Your task to perform on an android device: turn off translation in the chrome app Image 0: 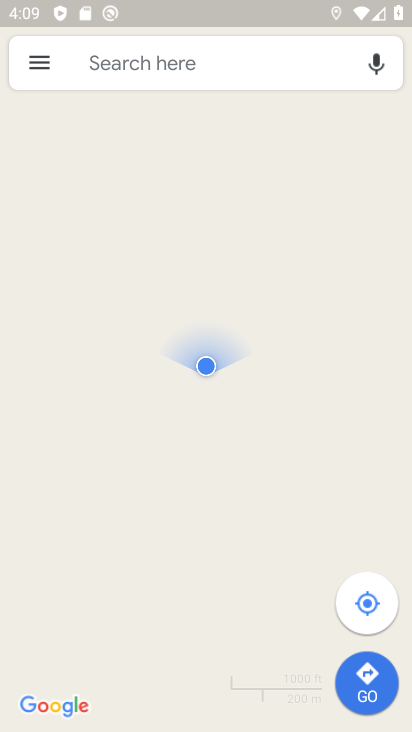
Step 0: press home button
Your task to perform on an android device: turn off translation in the chrome app Image 1: 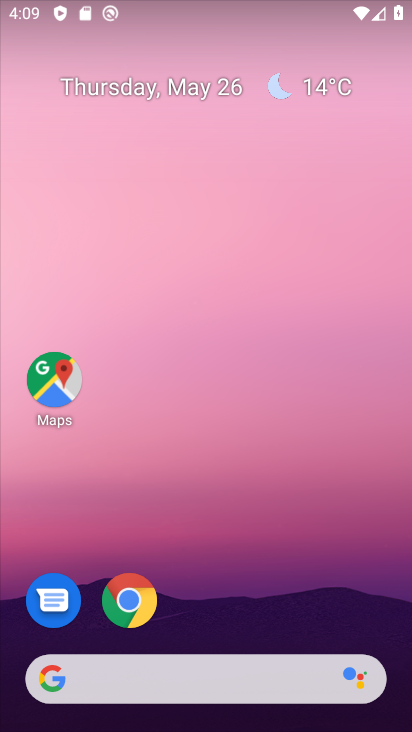
Step 1: click (132, 591)
Your task to perform on an android device: turn off translation in the chrome app Image 2: 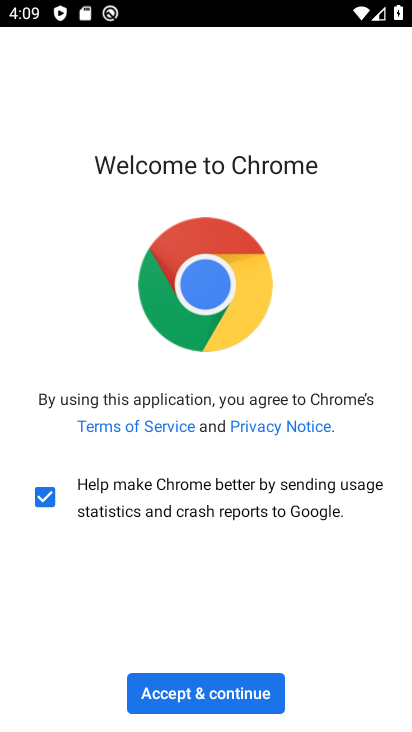
Step 2: click (139, 691)
Your task to perform on an android device: turn off translation in the chrome app Image 3: 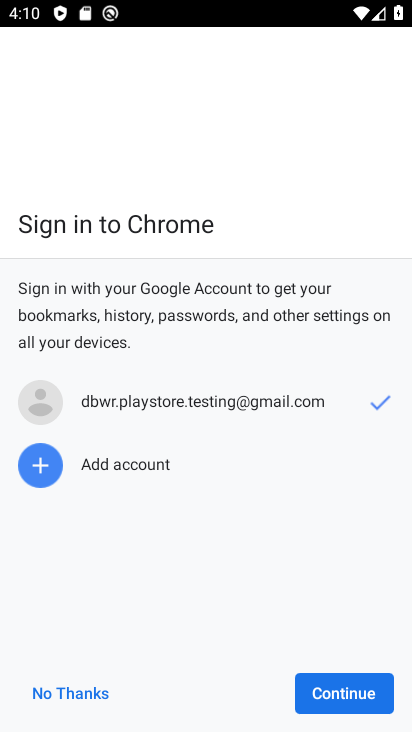
Step 3: click (380, 670)
Your task to perform on an android device: turn off translation in the chrome app Image 4: 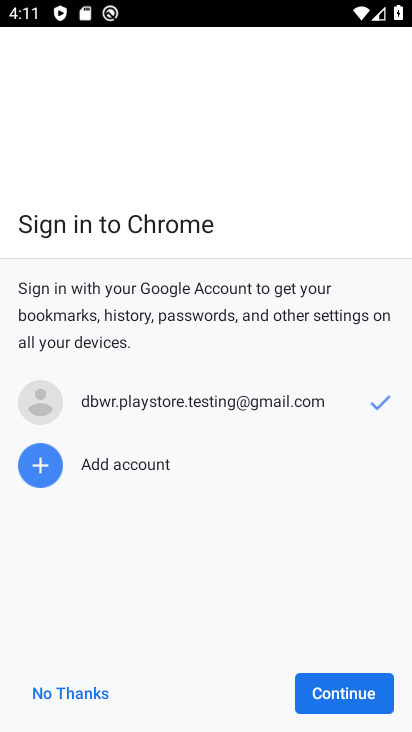
Step 4: click (334, 678)
Your task to perform on an android device: turn off translation in the chrome app Image 5: 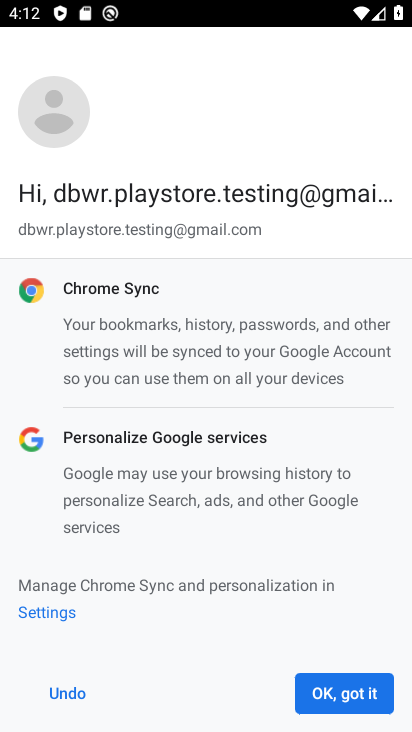
Step 5: click (375, 692)
Your task to perform on an android device: turn off translation in the chrome app Image 6: 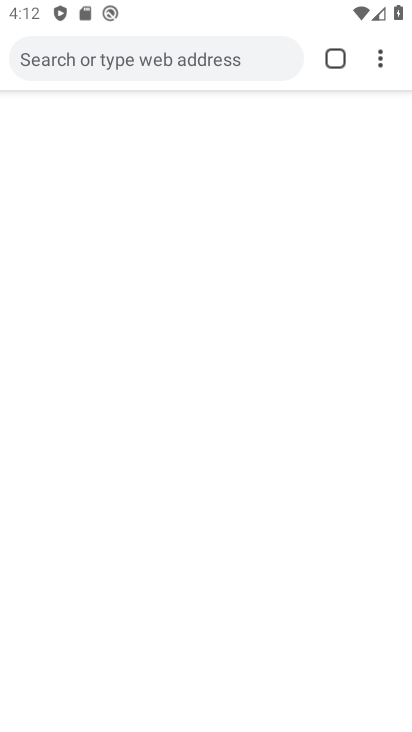
Step 6: click (375, 692)
Your task to perform on an android device: turn off translation in the chrome app Image 7: 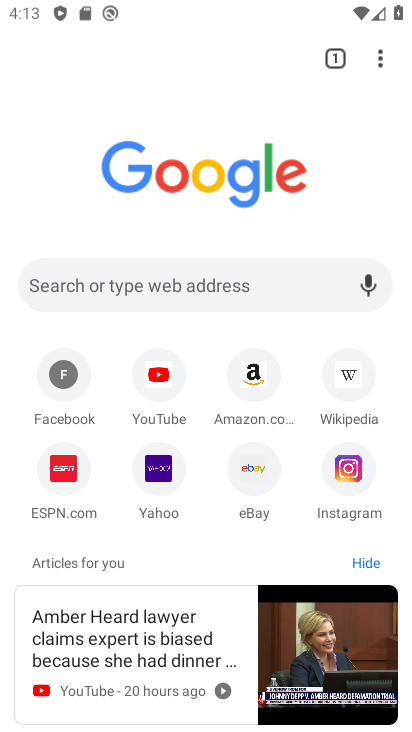
Step 7: click (389, 52)
Your task to perform on an android device: turn off translation in the chrome app Image 8: 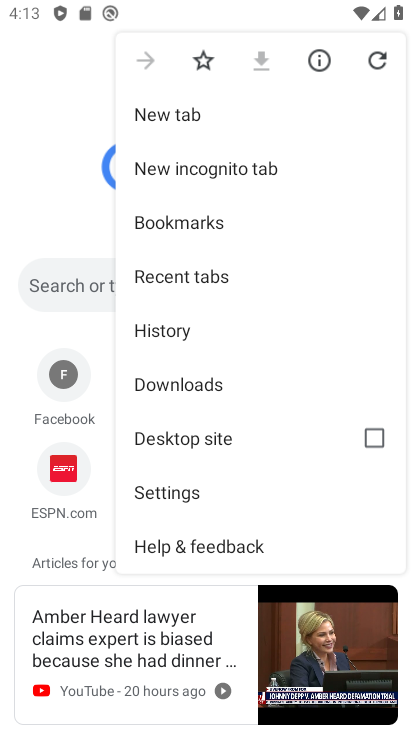
Step 8: click (210, 465)
Your task to perform on an android device: turn off translation in the chrome app Image 9: 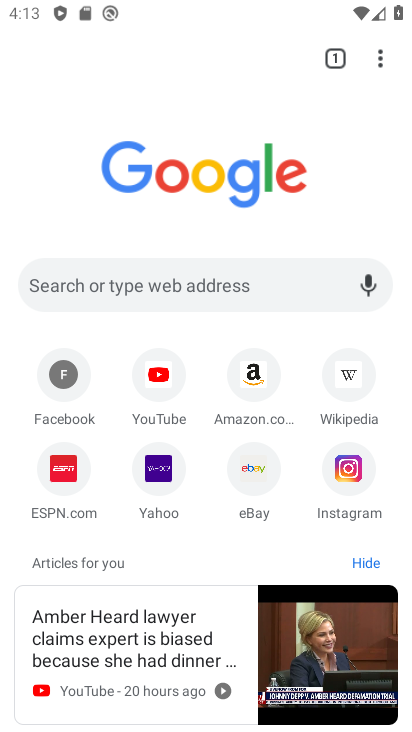
Step 9: click (387, 64)
Your task to perform on an android device: turn off translation in the chrome app Image 10: 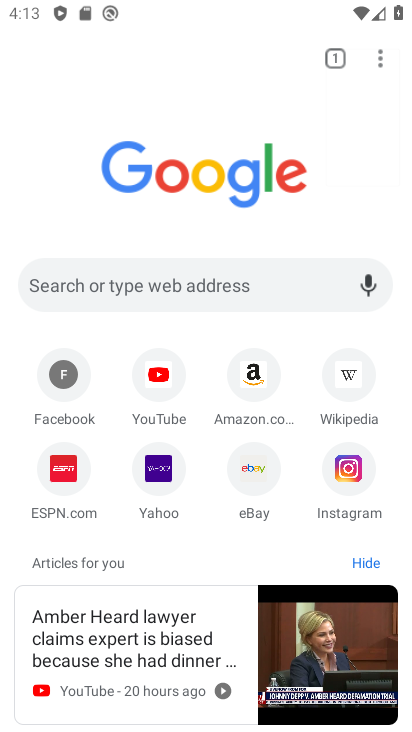
Step 10: click (387, 64)
Your task to perform on an android device: turn off translation in the chrome app Image 11: 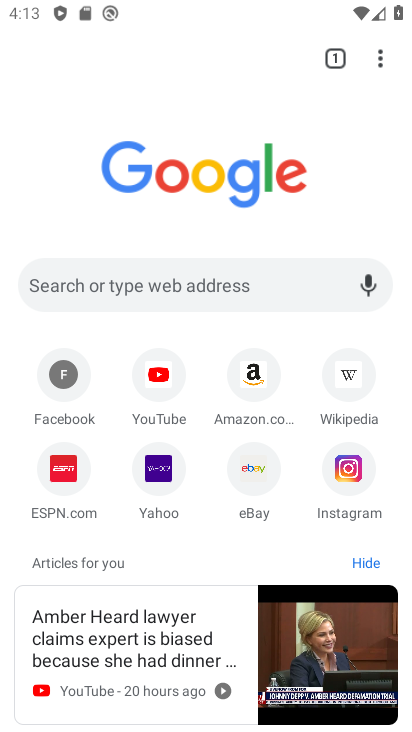
Step 11: click (387, 64)
Your task to perform on an android device: turn off translation in the chrome app Image 12: 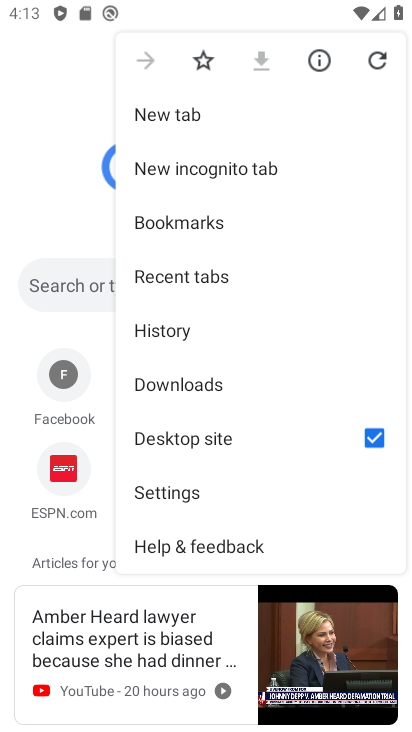
Step 12: click (210, 497)
Your task to perform on an android device: turn off translation in the chrome app Image 13: 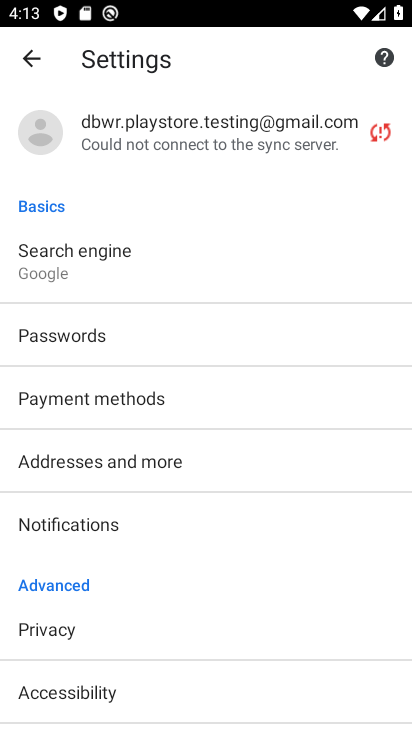
Step 13: drag from (210, 497) to (270, 116)
Your task to perform on an android device: turn off translation in the chrome app Image 14: 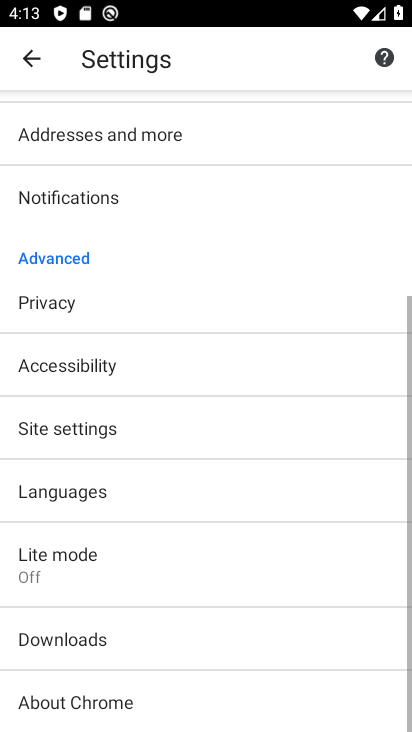
Step 14: click (138, 488)
Your task to perform on an android device: turn off translation in the chrome app Image 15: 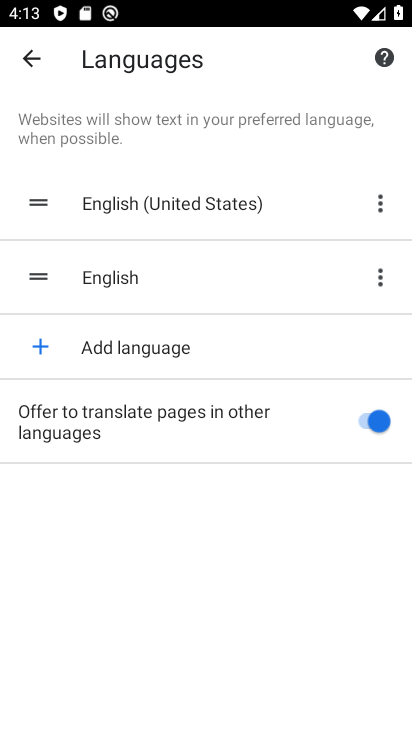
Step 15: click (361, 416)
Your task to perform on an android device: turn off translation in the chrome app Image 16: 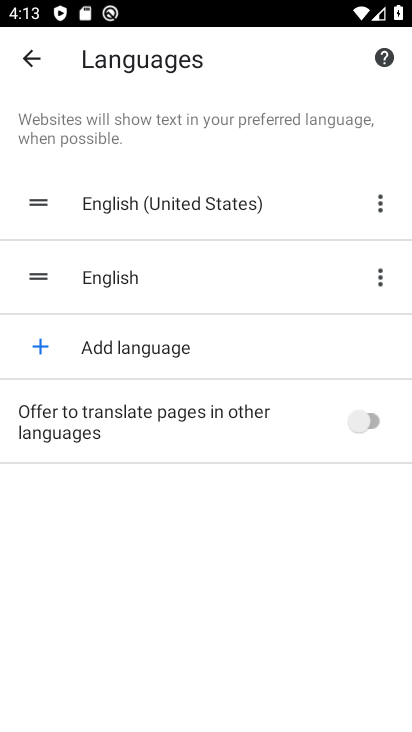
Step 16: task complete